Your task to perform on an android device: Find coffee shops on Maps Image 0: 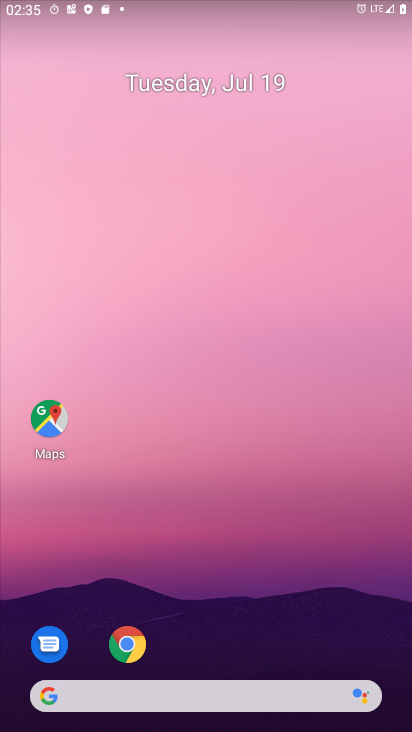
Step 0: drag from (221, 694) to (193, 207)
Your task to perform on an android device: Find coffee shops on Maps Image 1: 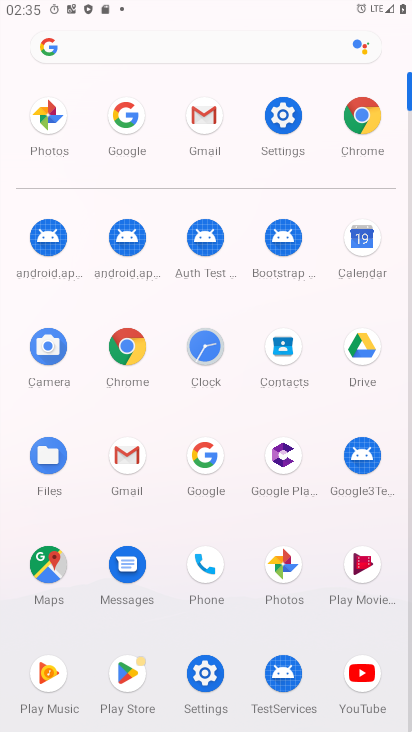
Step 1: click (52, 568)
Your task to perform on an android device: Find coffee shops on Maps Image 2: 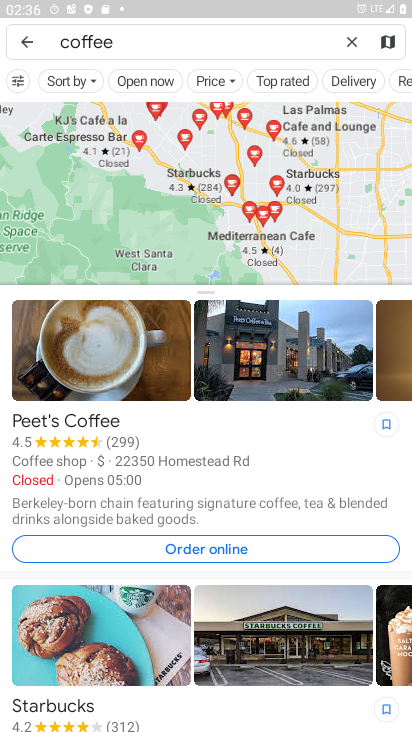
Step 2: click (352, 43)
Your task to perform on an android device: Find coffee shops on Maps Image 3: 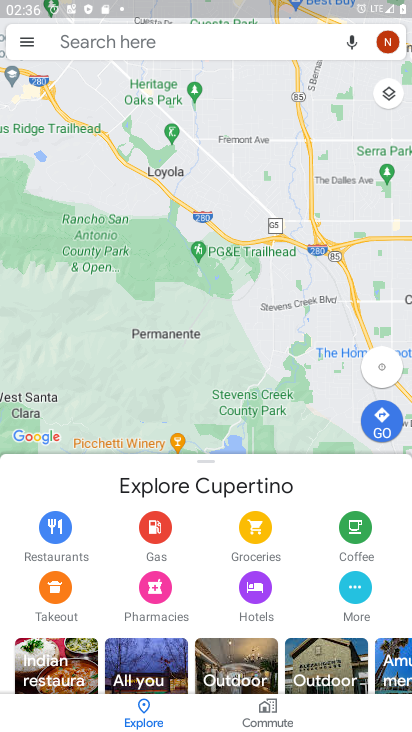
Step 3: click (232, 46)
Your task to perform on an android device: Find coffee shops on Maps Image 4: 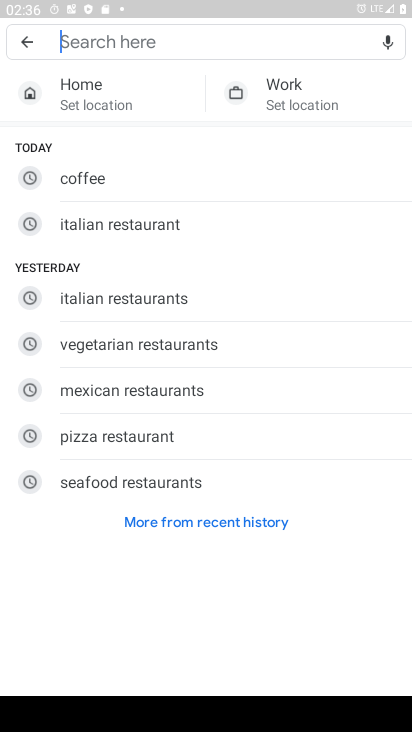
Step 4: type "coffee shops"
Your task to perform on an android device: Find coffee shops on Maps Image 5: 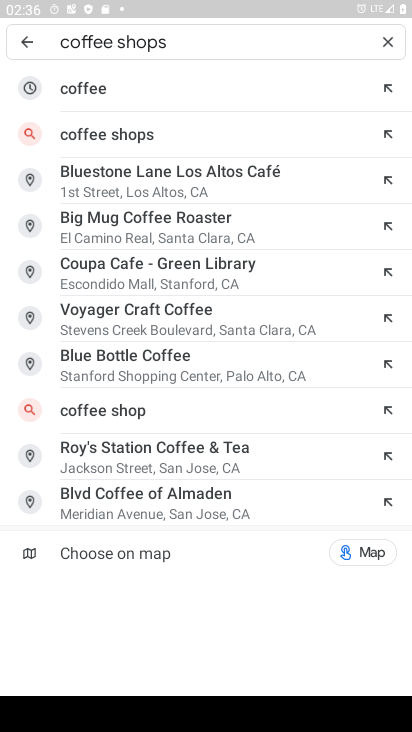
Step 5: click (128, 138)
Your task to perform on an android device: Find coffee shops on Maps Image 6: 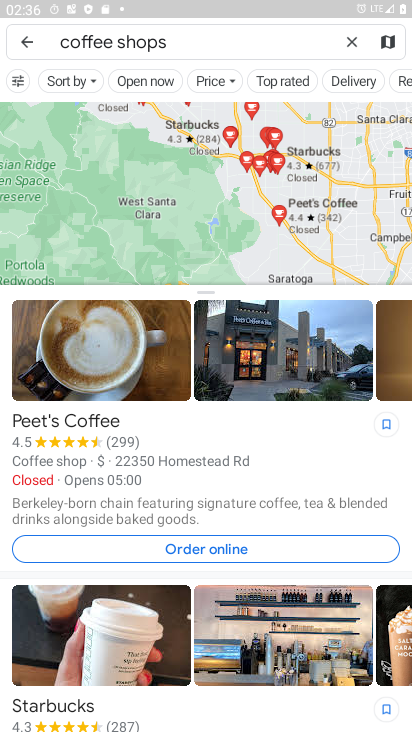
Step 6: task complete